Your task to perform on an android device: turn off wifi Image 0: 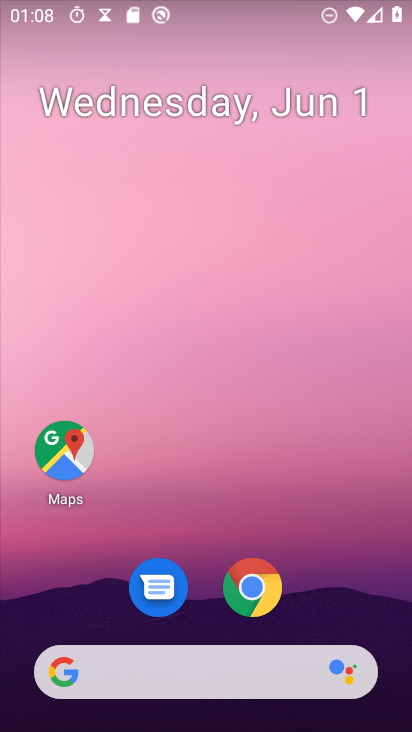
Step 0: drag from (313, 614) to (411, 114)
Your task to perform on an android device: turn off wifi Image 1: 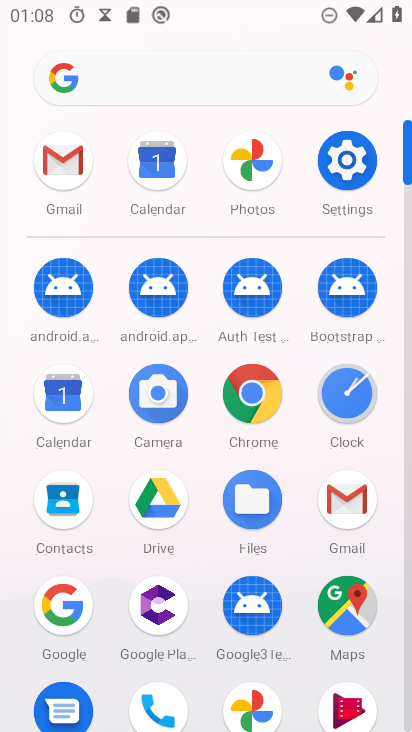
Step 1: click (342, 155)
Your task to perform on an android device: turn off wifi Image 2: 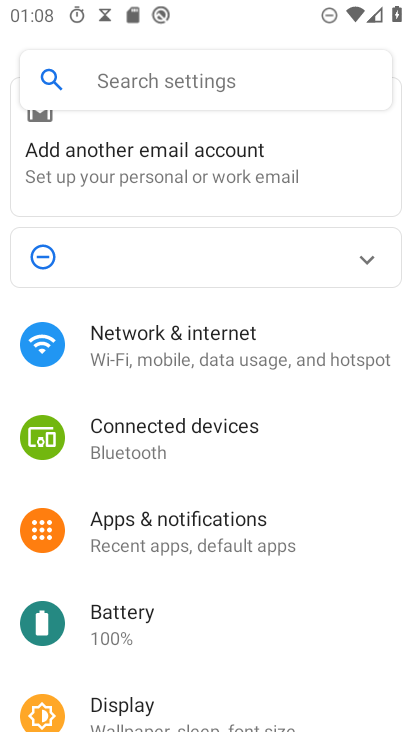
Step 2: click (172, 326)
Your task to perform on an android device: turn off wifi Image 3: 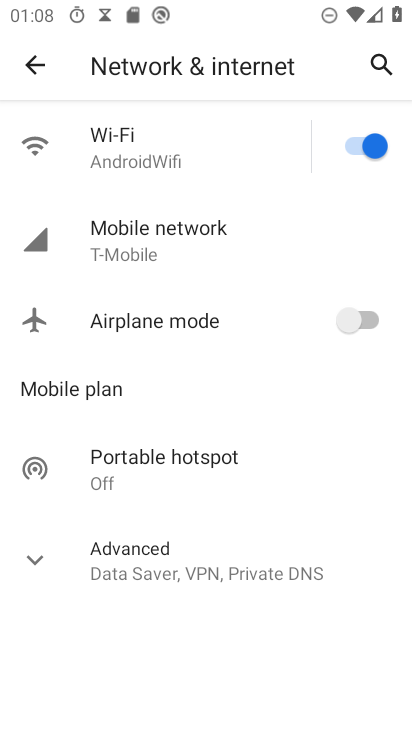
Step 3: click (379, 157)
Your task to perform on an android device: turn off wifi Image 4: 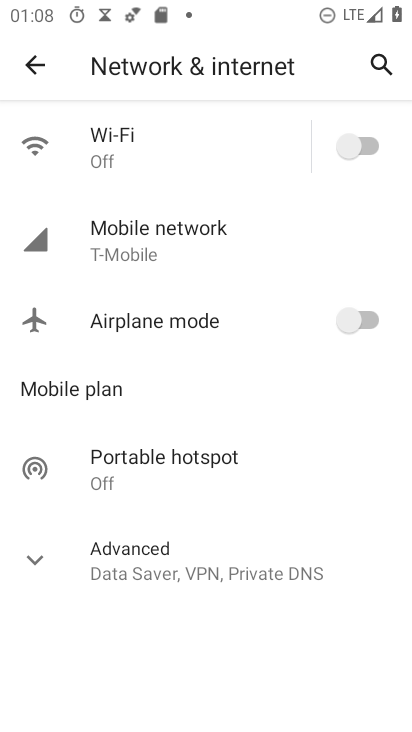
Step 4: task complete